Your task to perform on an android device: Turn on the flashlight Image 0: 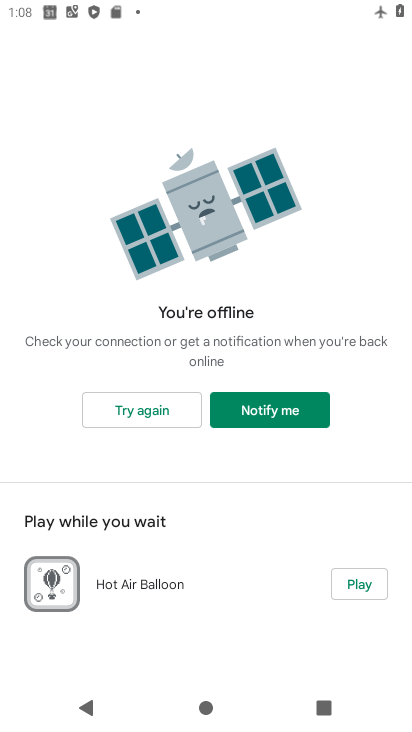
Step 0: press home button
Your task to perform on an android device: Turn on the flashlight Image 1: 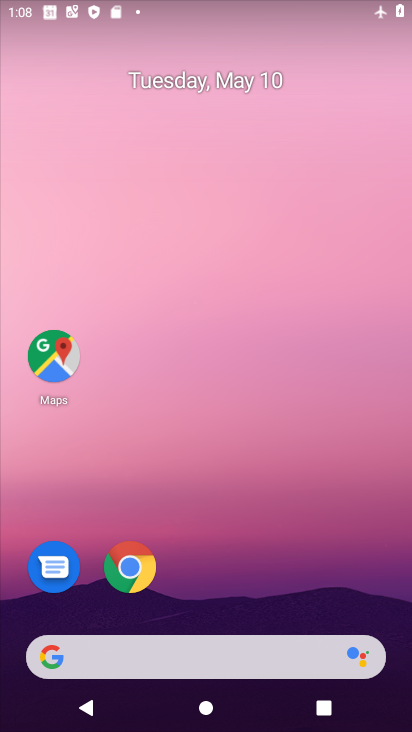
Step 1: drag from (394, 626) to (252, 15)
Your task to perform on an android device: Turn on the flashlight Image 2: 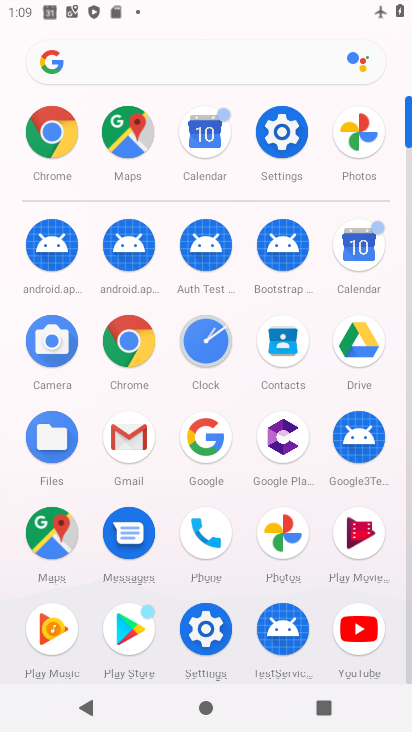
Step 2: click (196, 610)
Your task to perform on an android device: Turn on the flashlight Image 3: 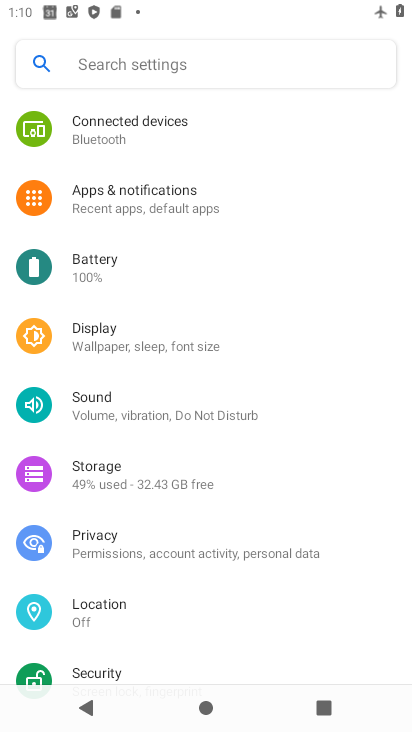
Step 3: task complete